Your task to perform on an android device: Go to Yahoo.com Image 0: 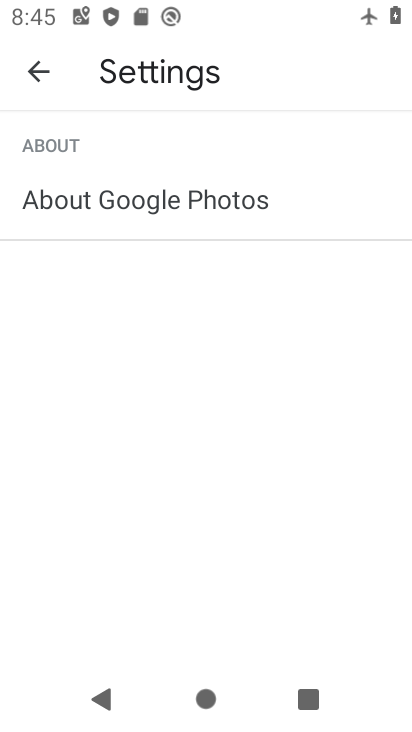
Step 0: press home button
Your task to perform on an android device: Go to Yahoo.com Image 1: 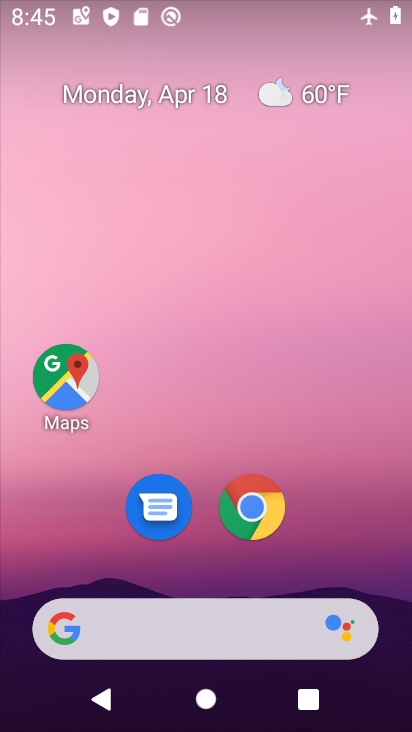
Step 1: drag from (302, 478) to (276, 204)
Your task to perform on an android device: Go to Yahoo.com Image 2: 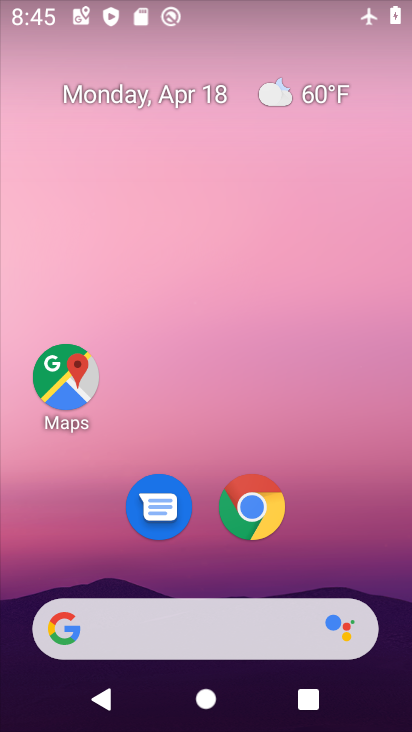
Step 2: click (267, 536)
Your task to perform on an android device: Go to Yahoo.com Image 3: 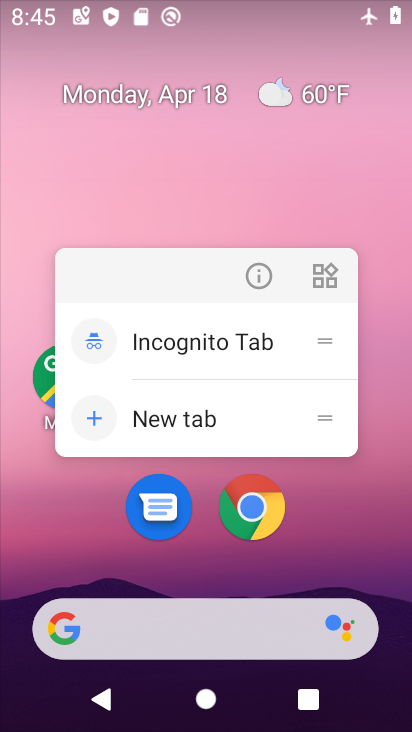
Step 3: click (263, 527)
Your task to perform on an android device: Go to Yahoo.com Image 4: 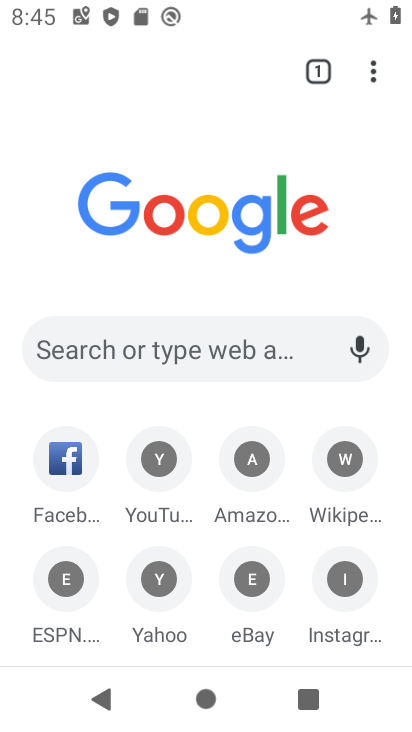
Step 4: click (230, 349)
Your task to perform on an android device: Go to Yahoo.com Image 5: 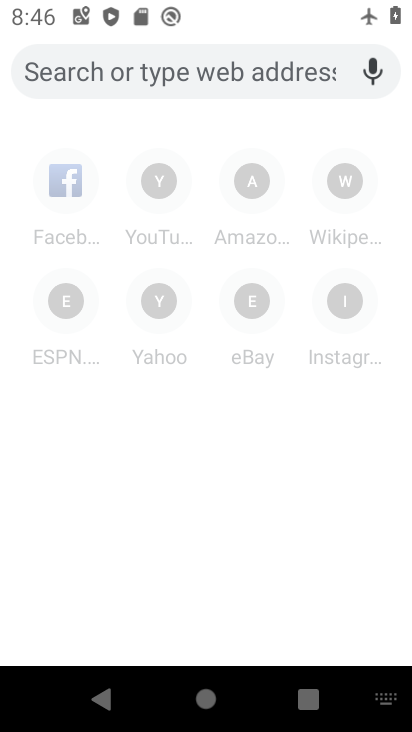
Step 5: type "yahoo.com"
Your task to perform on an android device: Go to Yahoo.com Image 6: 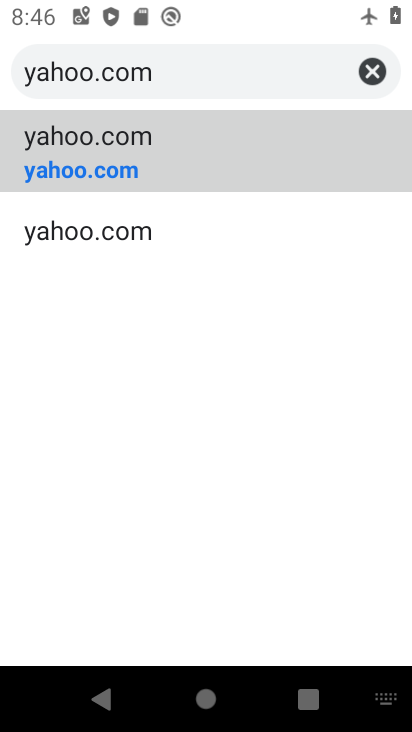
Step 6: click (63, 147)
Your task to perform on an android device: Go to Yahoo.com Image 7: 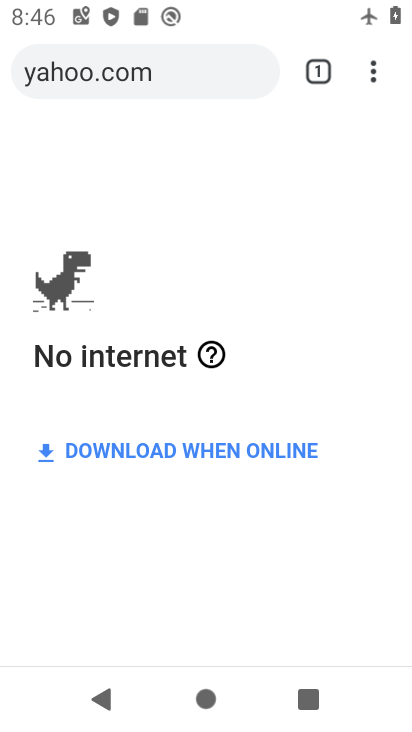
Step 7: task complete